Your task to perform on an android device: Clear all items from cart on costco. Search for "macbook pro" on costco, select the first entry, and add it to the cart. Image 0: 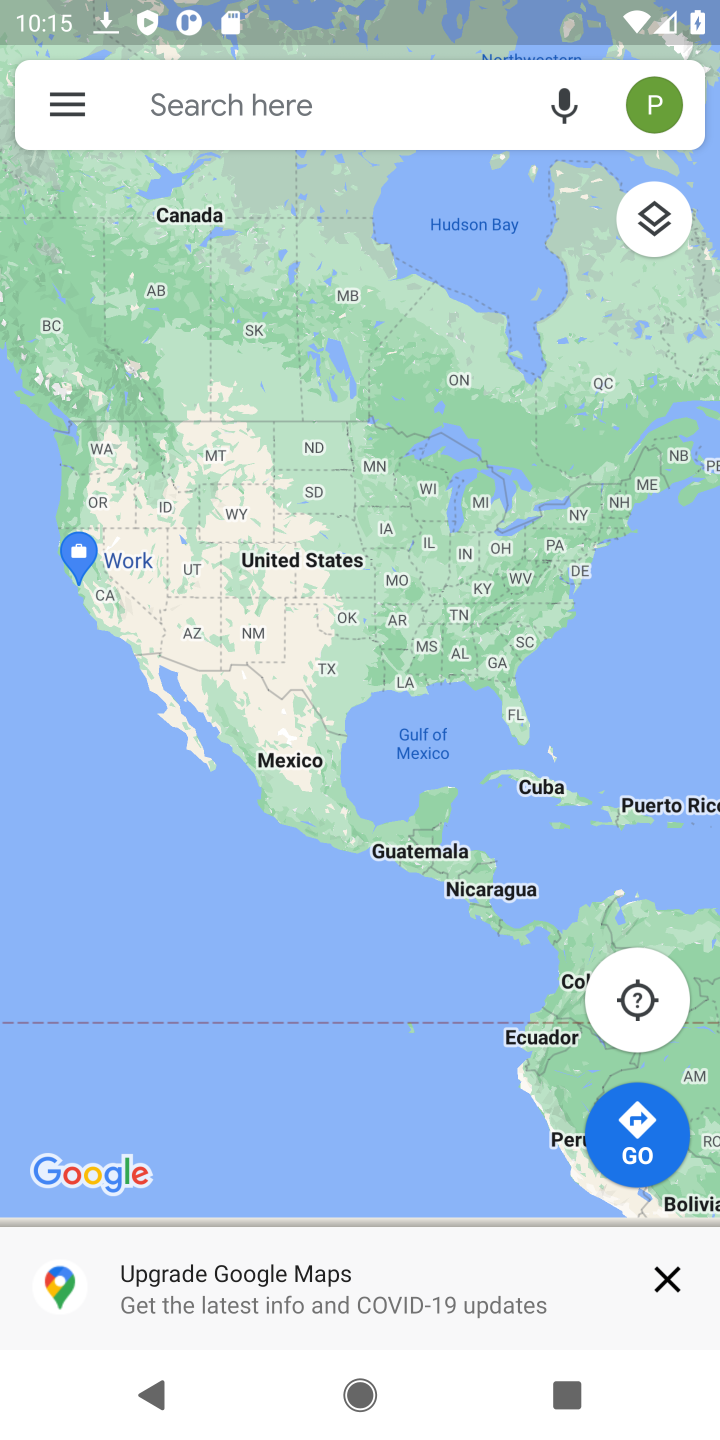
Step 0: press home button
Your task to perform on an android device: Clear all items from cart on costco. Search for "macbook pro" on costco, select the first entry, and add it to the cart. Image 1: 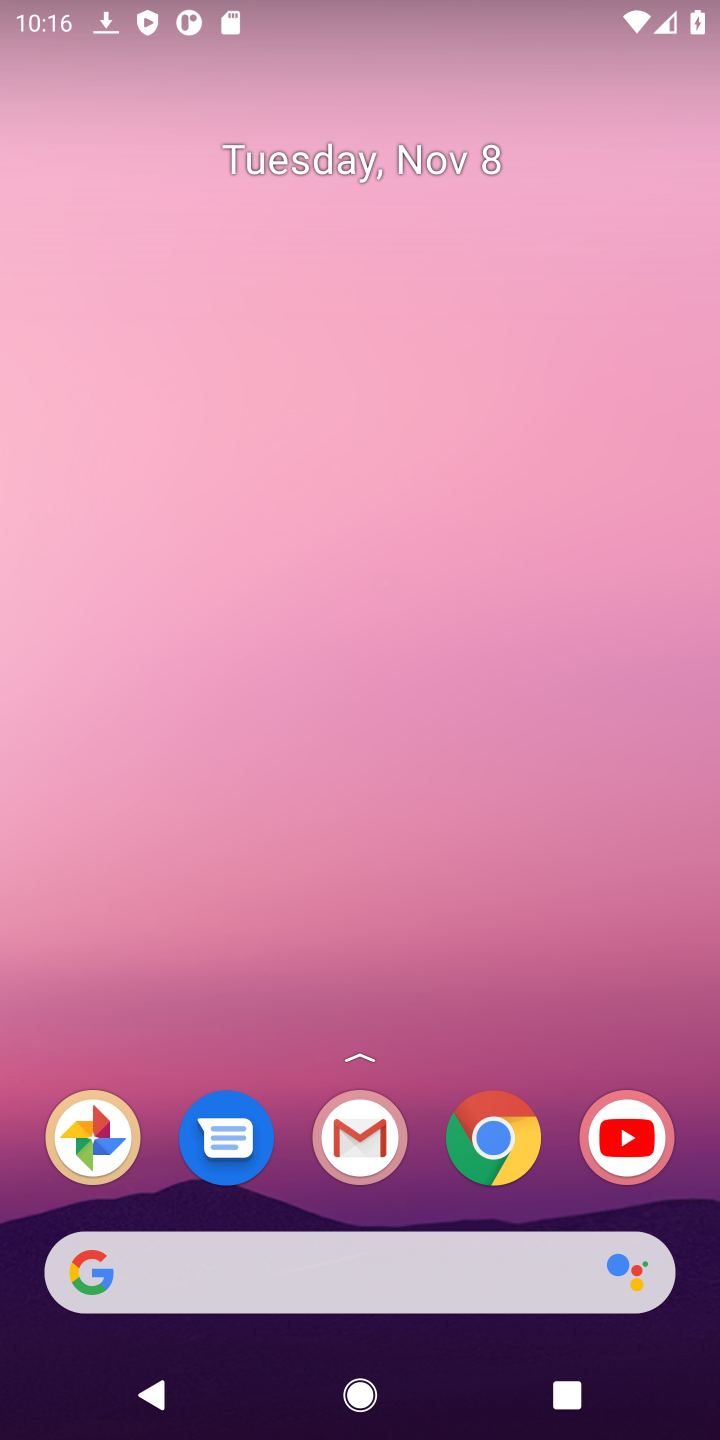
Step 1: click (486, 1159)
Your task to perform on an android device: Clear all items from cart on costco. Search for "macbook pro" on costco, select the first entry, and add it to the cart. Image 2: 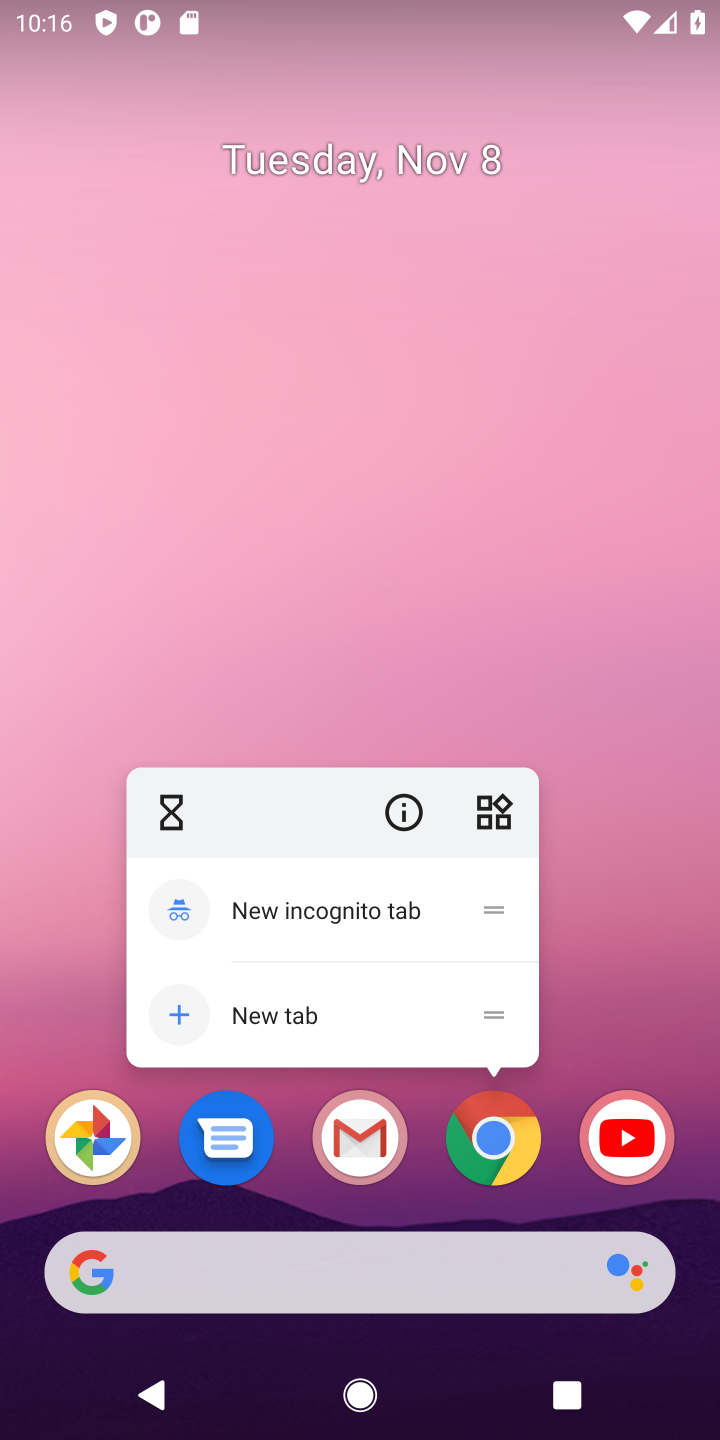
Step 2: click (496, 1143)
Your task to perform on an android device: Clear all items from cart on costco. Search for "macbook pro" on costco, select the first entry, and add it to the cart. Image 3: 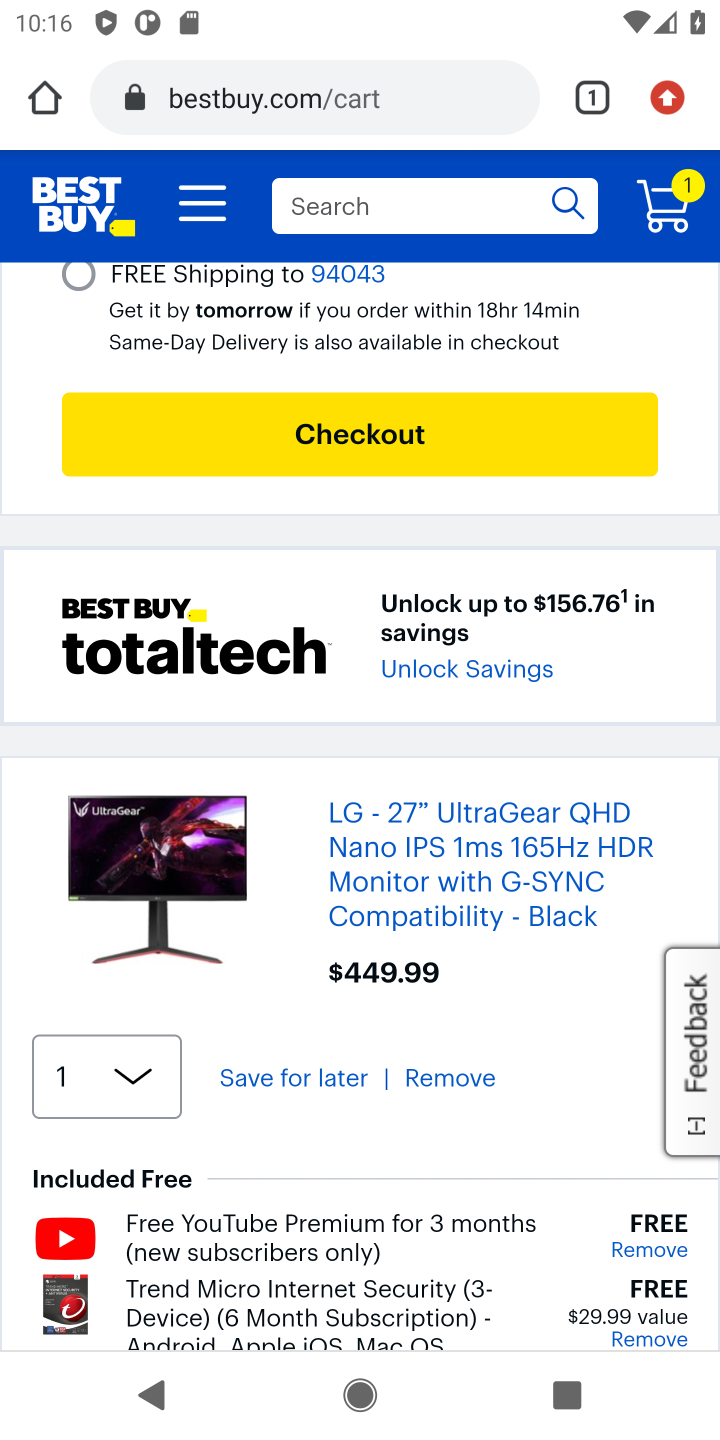
Step 3: click (373, 103)
Your task to perform on an android device: Clear all items from cart on costco. Search for "macbook pro" on costco, select the first entry, and add it to the cart. Image 4: 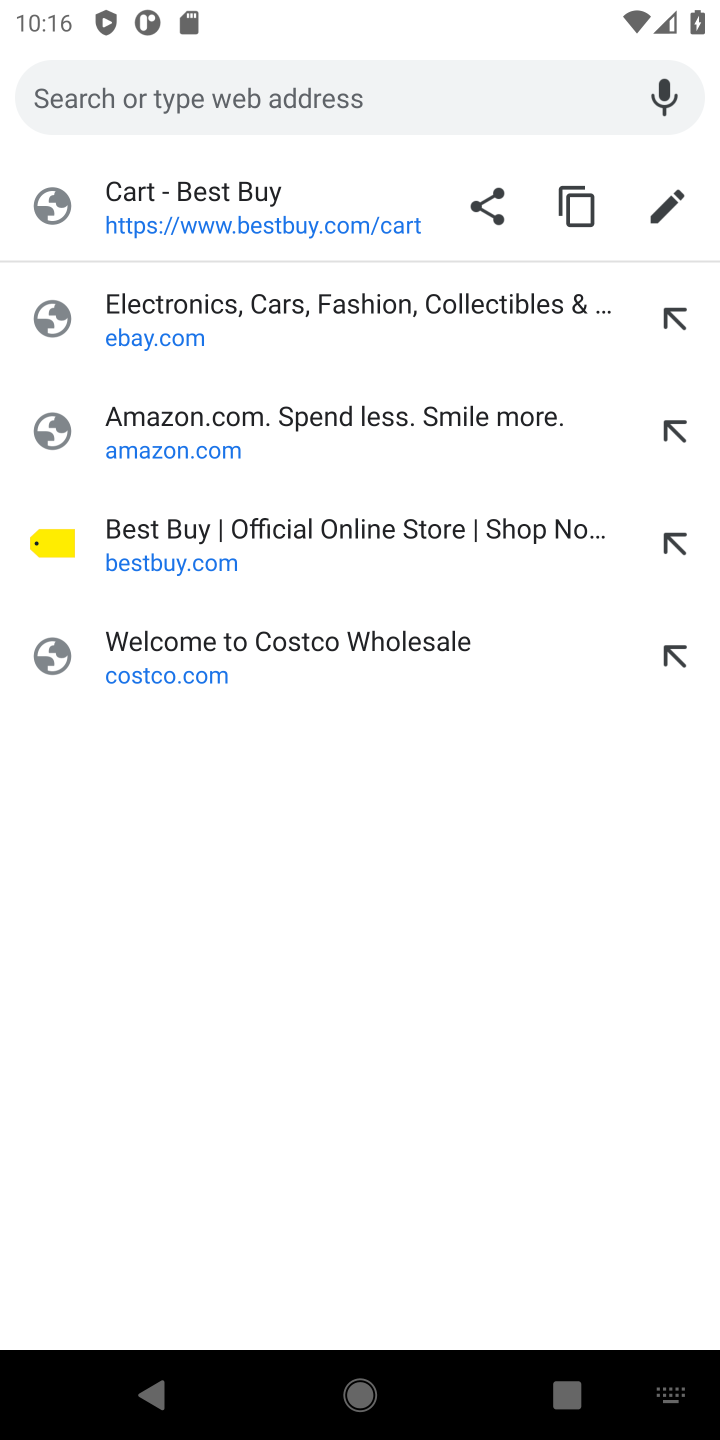
Step 4: click (157, 672)
Your task to perform on an android device: Clear all items from cart on costco. Search for "macbook pro" on costco, select the first entry, and add it to the cart. Image 5: 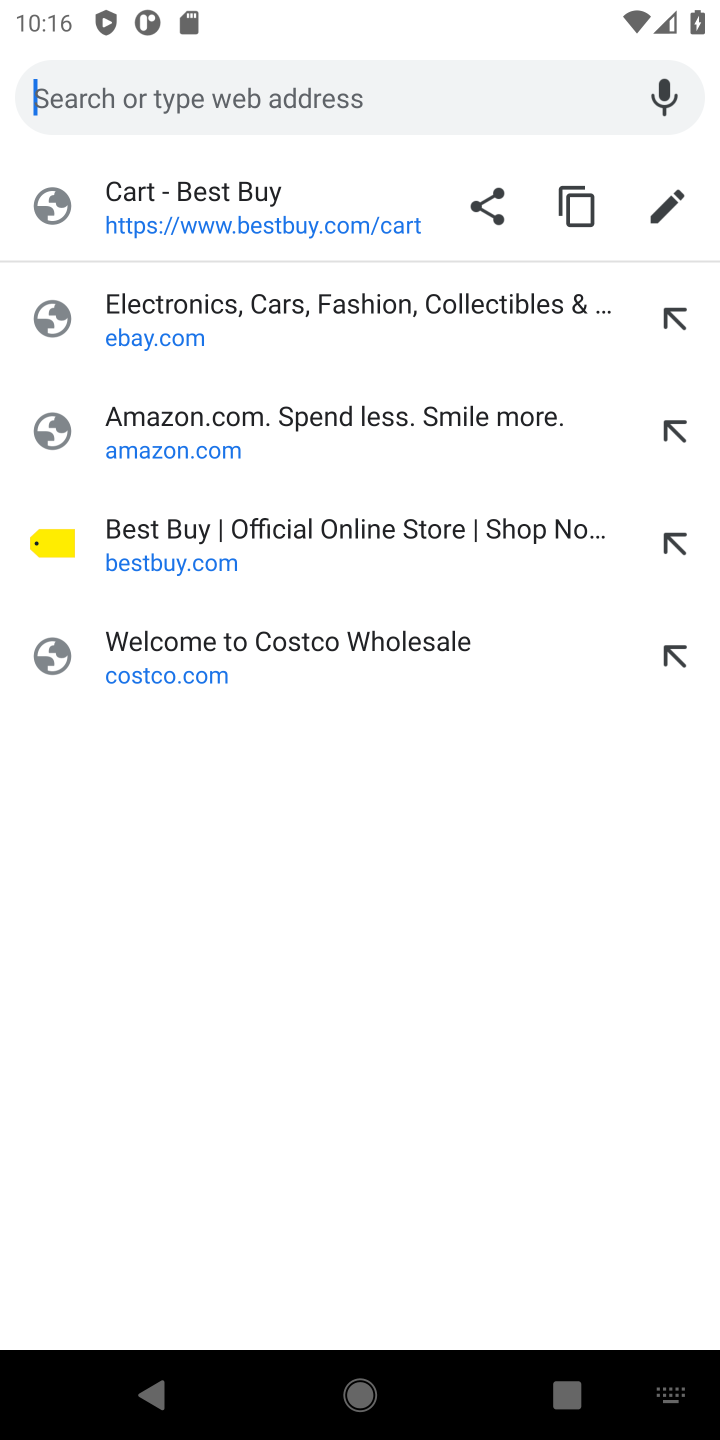
Step 5: click (155, 665)
Your task to perform on an android device: Clear all items from cart on costco. Search for "macbook pro" on costco, select the first entry, and add it to the cart. Image 6: 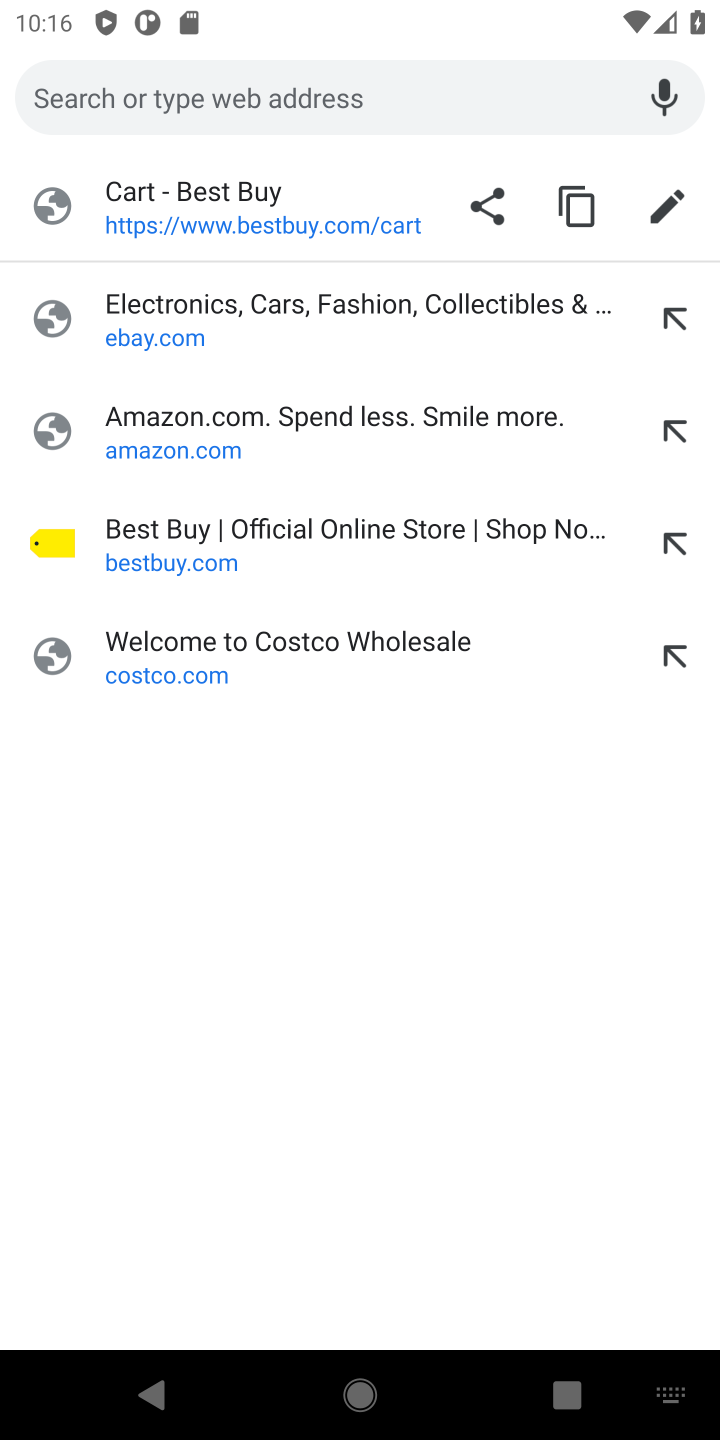
Step 6: click (171, 664)
Your task to perform on an android device: Clear all items from cart on costco. Search for "macbook pro" on costco, select the first entry, and add it to the cart. Image 7: 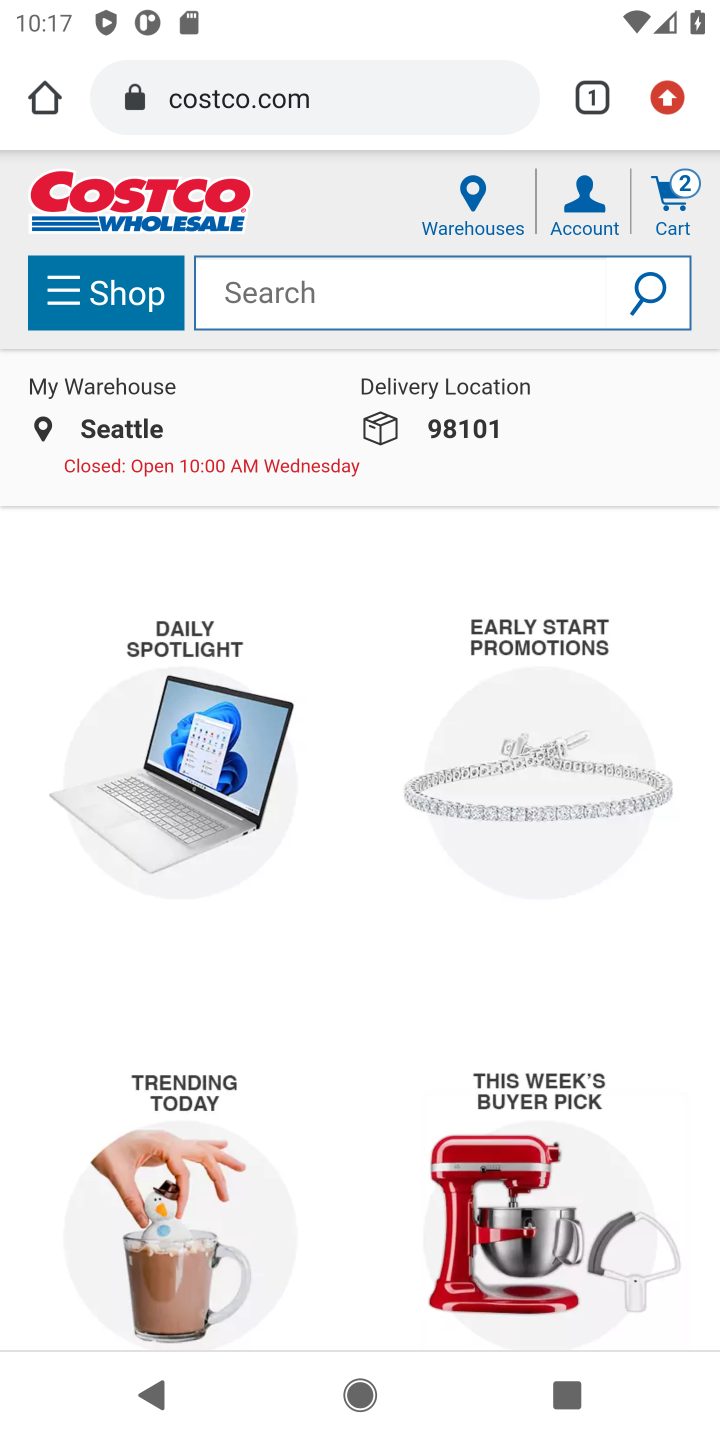
Step 7: click (367, 282)
Your task to perform on an android device: Clear all items from cart on costco. Search for "macbook pro" on costco, select the first entry, and add it to the cart. Image 8: 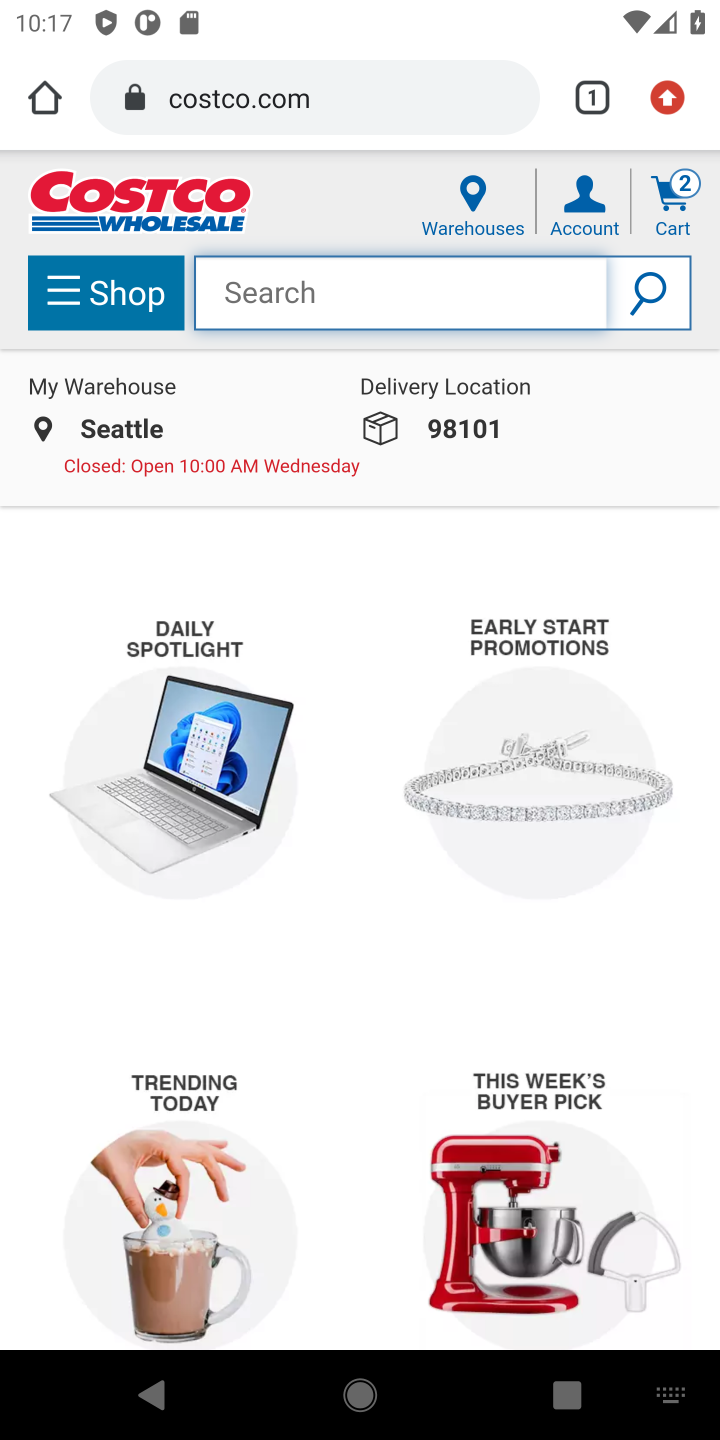
Step 8: type "macbook pro"
Your task to perform on an android device: Clear all items from cart on costco. Search for "macbook pro" on costco, select the first entry, and add it to the cart. Image 9: 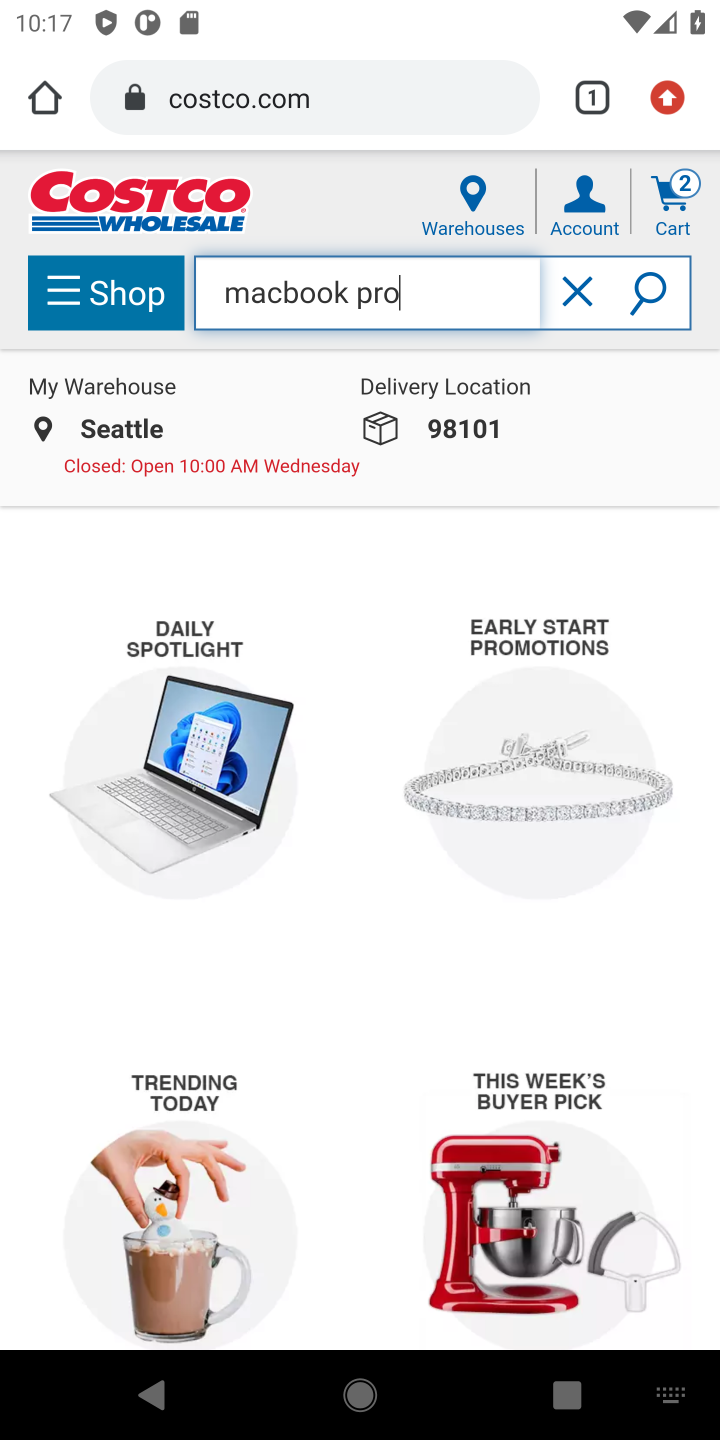
Step 9: press enter
Your task to perform on an android device: Clear all items from cart on costco. Search for "macbook pro" on costco, select the first entry, and add it to the cart. Image 10: 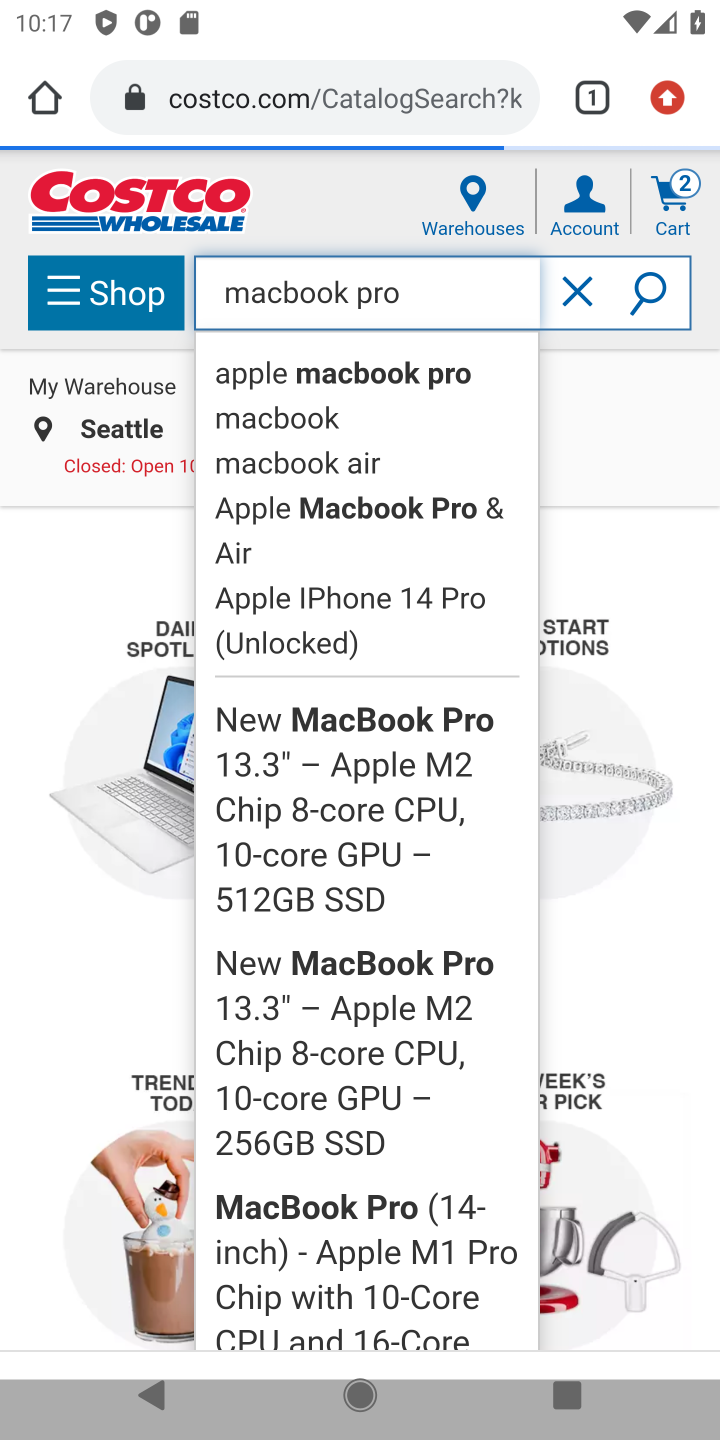
Step 10: press enter
Your task to perform on an android device: Clear all items from cart on costco. Search for "macbook pro" on costco, select the first entry, and add it to the cart. Image 11: 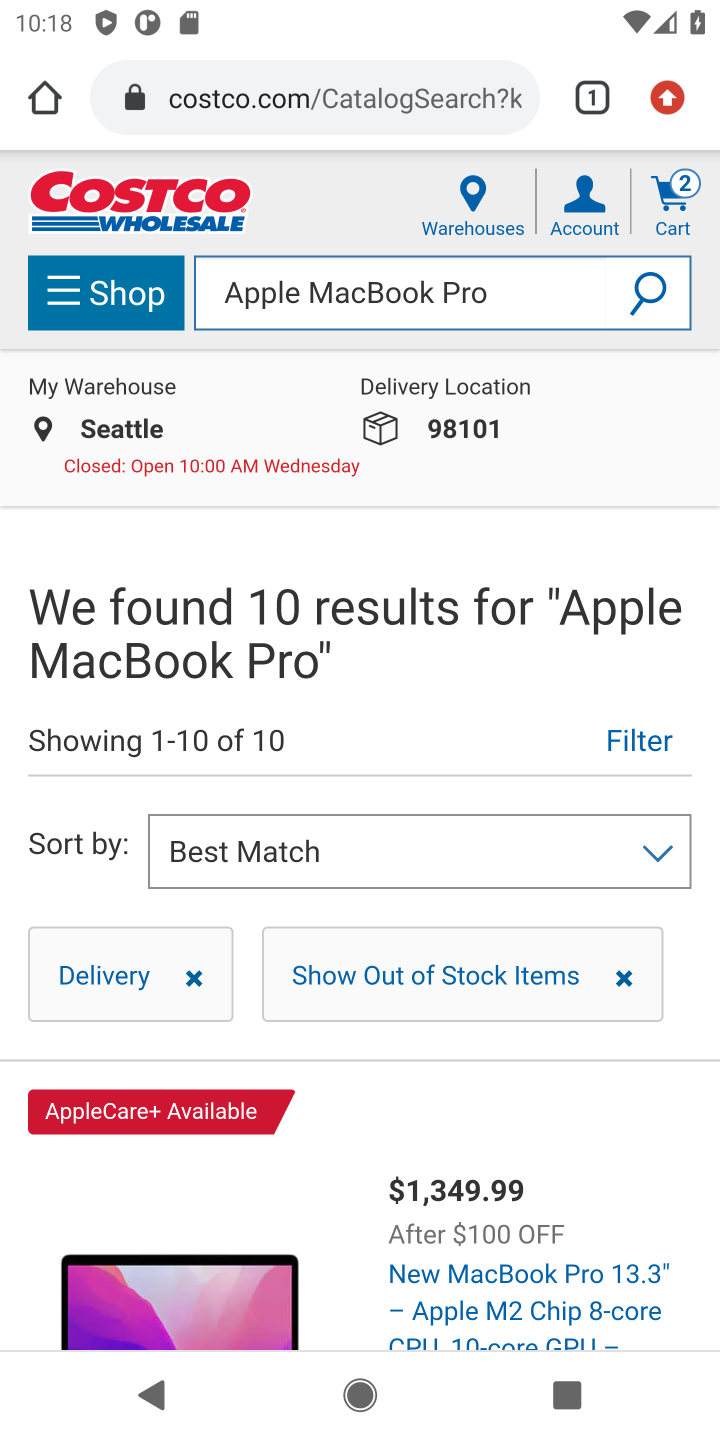
Step 11: drag from (329, 1229) to (435, 820)
Your task to perform on an android device: Clear all items from cart on costco. Search for "macbook pro" on costco, select the first entry, and add it to the cart. Image 12: 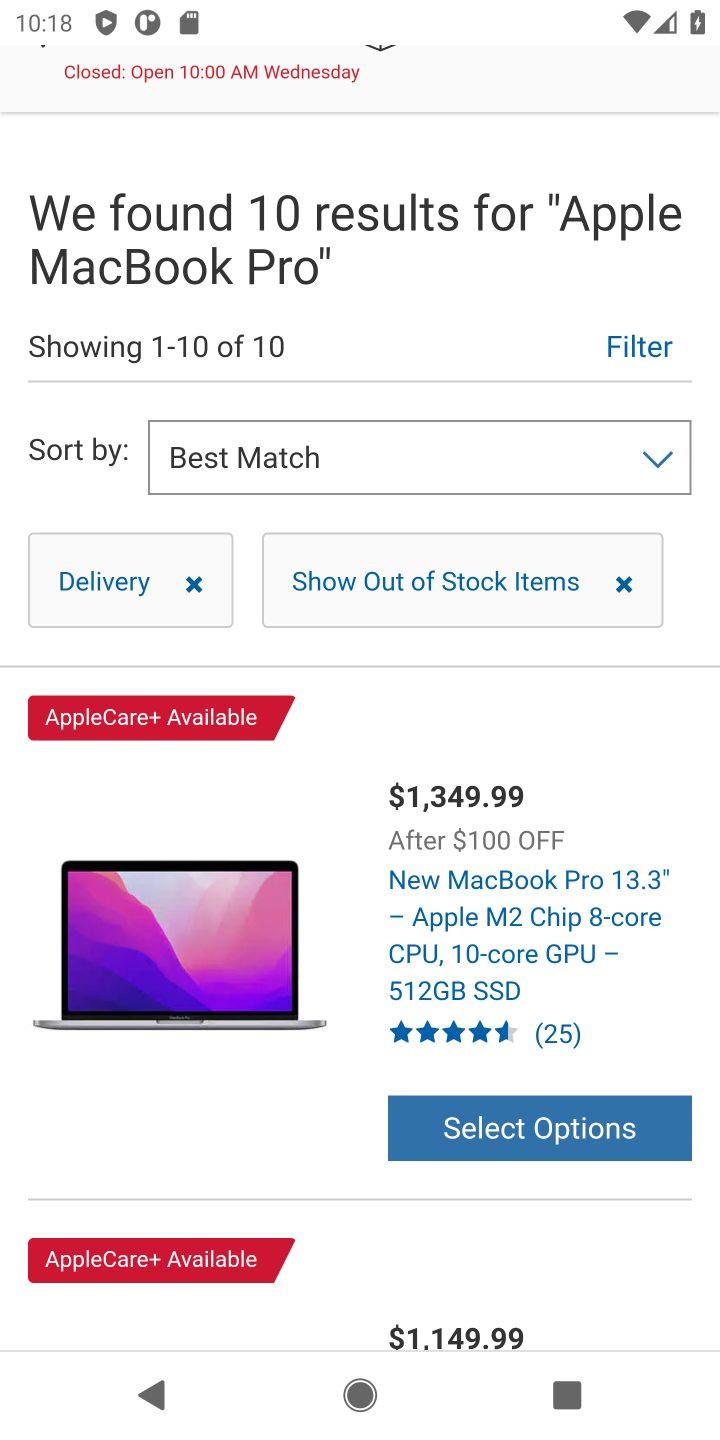
Step 12: click (500, 915)
Your task to perform on an android device: Clear all items from cart on costco. Search for "macbook pro" on costco, select the first entry, and add it to the cart. Image 13: 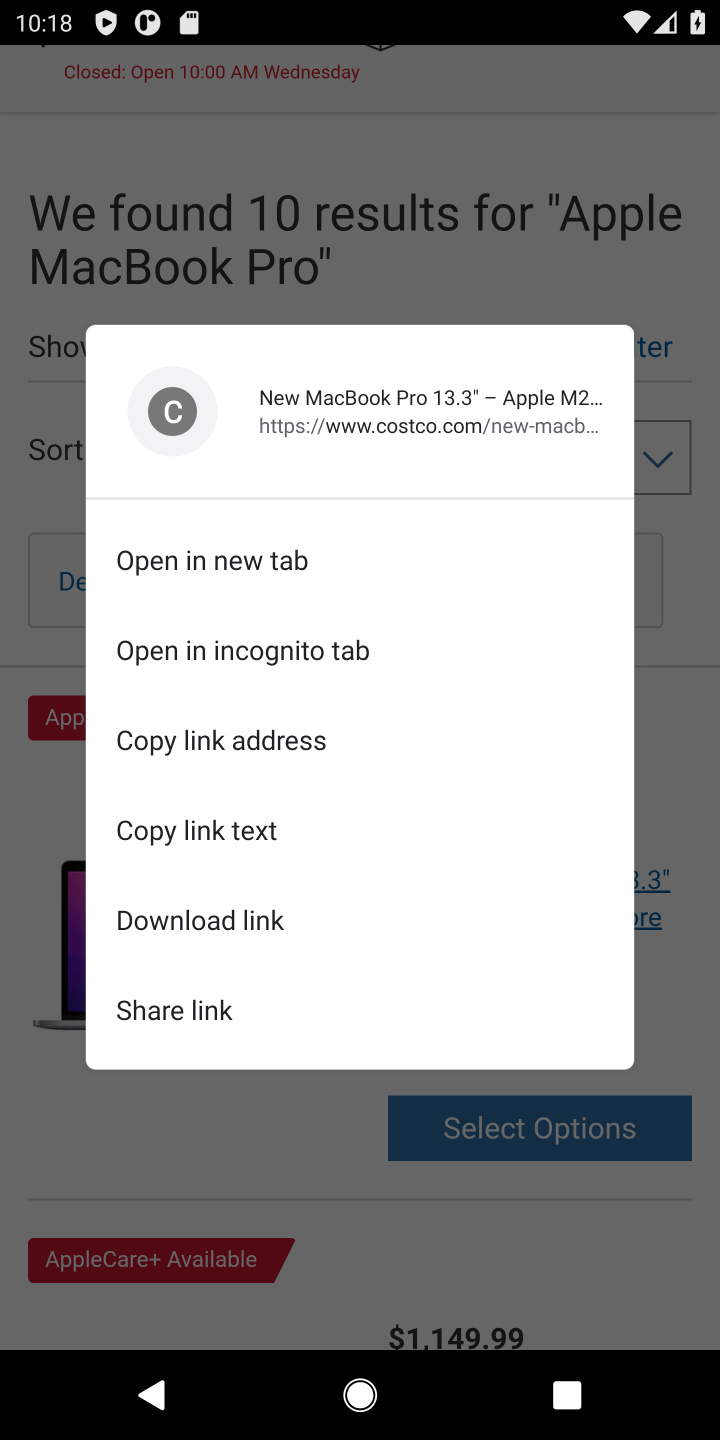
Step 13: click (662, 821)
Your task to perform on an android device: Clear all items from cart on costco. Search for "macbook pro" on costco, select the first entry, and add it to the cart. Image 14: 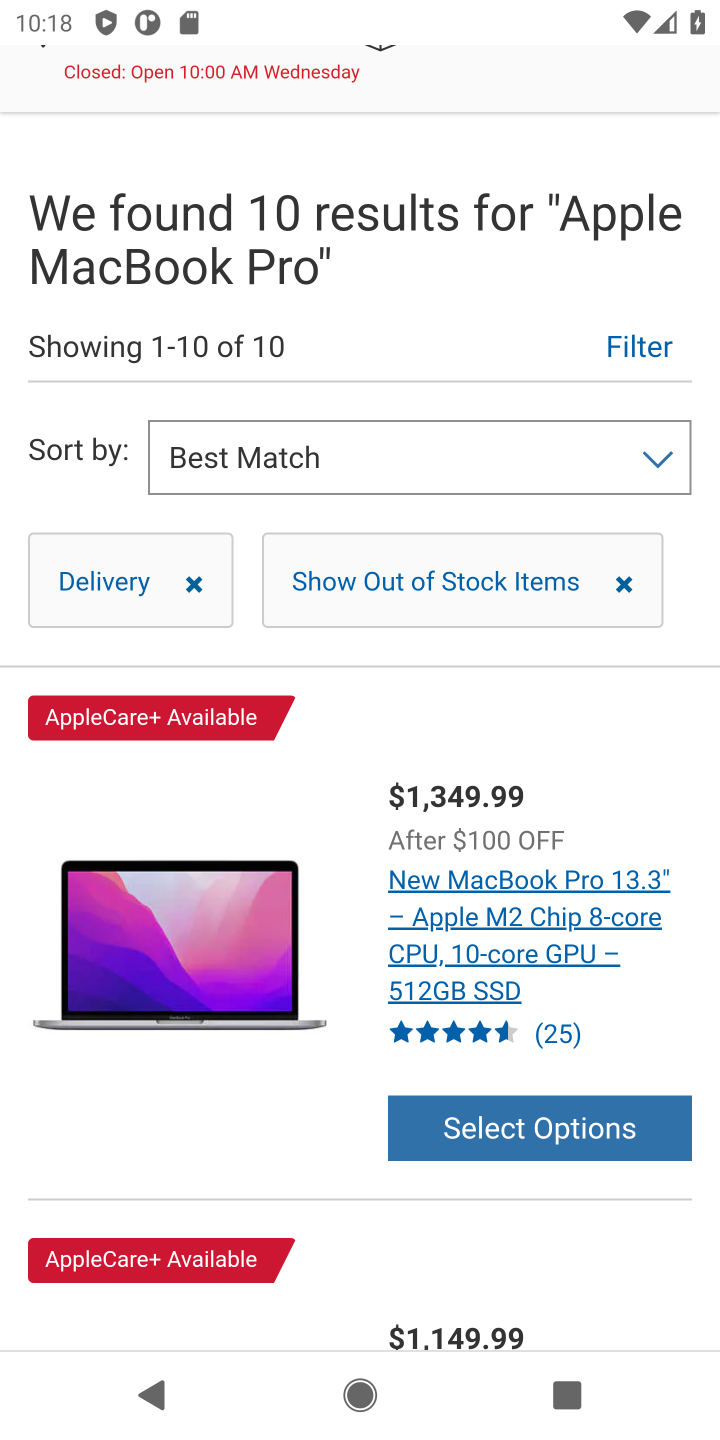
Step 14: click (445, 910)
Your task to perform on an android device: Clear all items from cart on costco. Search for "macbook pro" on costco, select the first entry, and add it to the cart. Image 15: 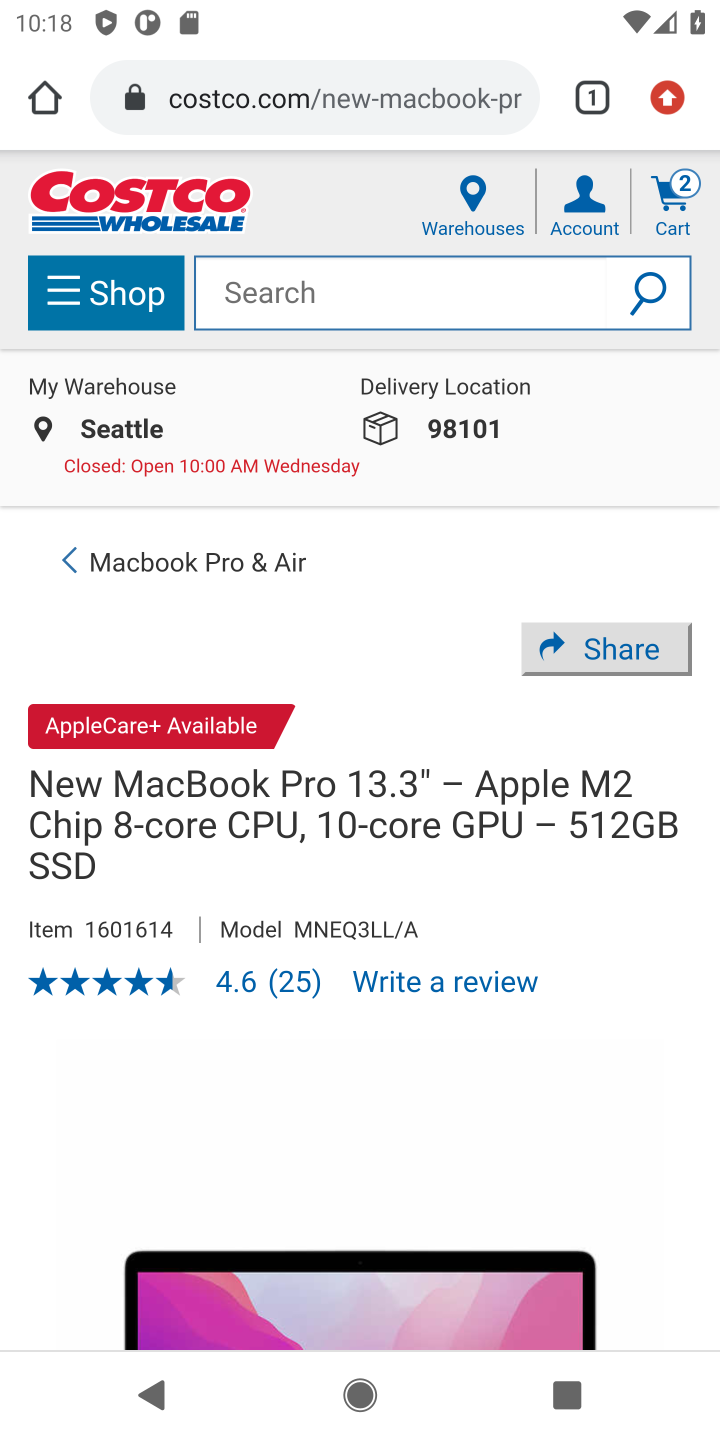
Step 15: task complete